Your task to perform on an android device: Go to accessibility settings Image 0: 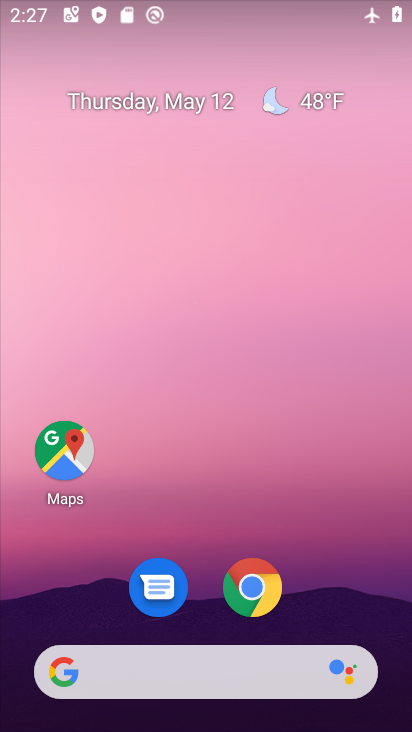
Step 0: drag from (268, 631) to (278, 167)
Your task to perform on an android device: Go to accessibility settings Image 1: 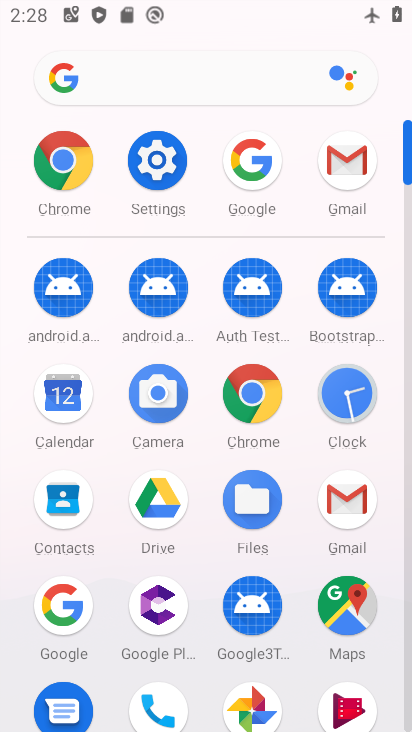
Step 1: click (162, 175)
Your task to perform on an android device: Go to accessibility settings Image 2: 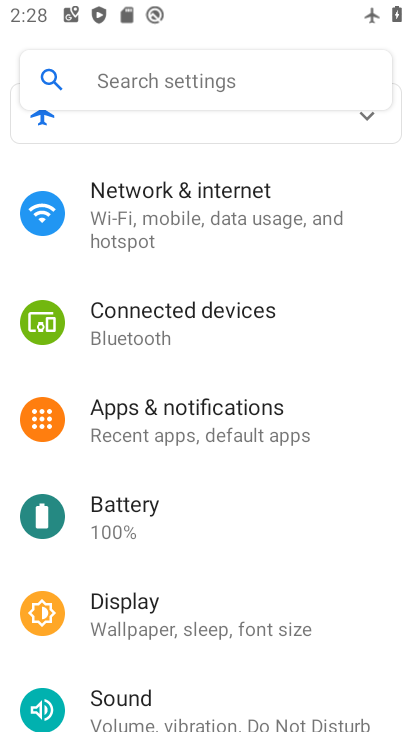
Step 2: drag from (210, 622) to (268, 272)
Your task to perform on an android device: Go to accessibility settings Image 3: 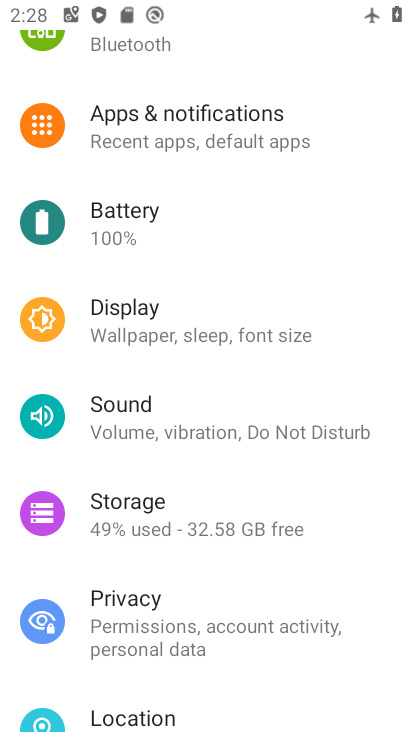
Step 3: drag from (263, 573) to (278, 294)
Your task to perform on an android device: Go to accessibility settings Image 4: 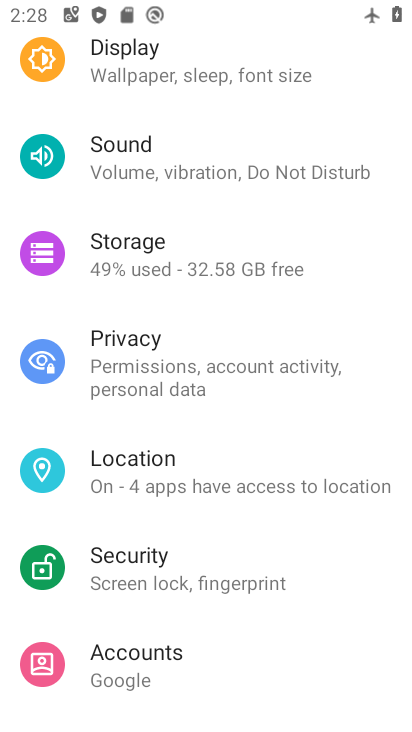
Step 4: drag from (256, 543) to (286, 247)
Your task to perform on an android device: Go to accessibility settings Image 5: 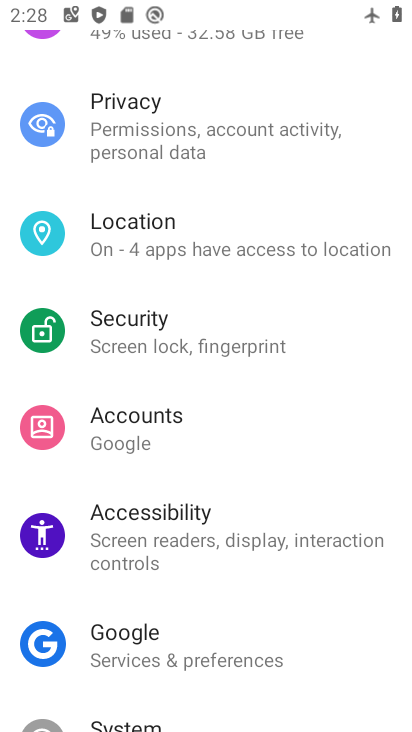
Step 5: drag from (189, 544) to (173, 260)
Your task to perform on an android device: Go to accessibility settings Image 6: 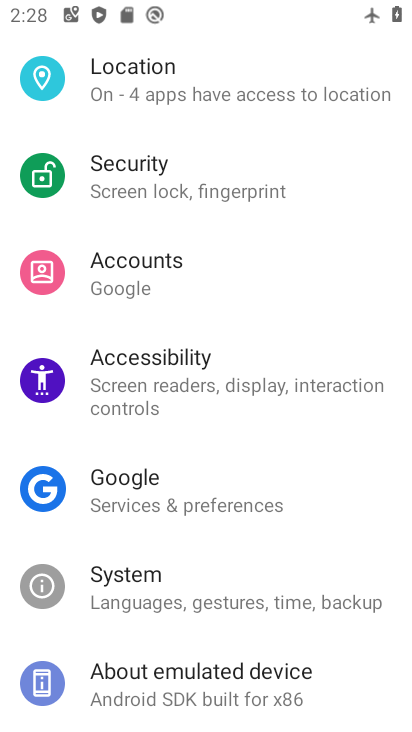
Step 6: click (211, 382)
Your task to perform on an android device: Go to accessibility settings Image 7: 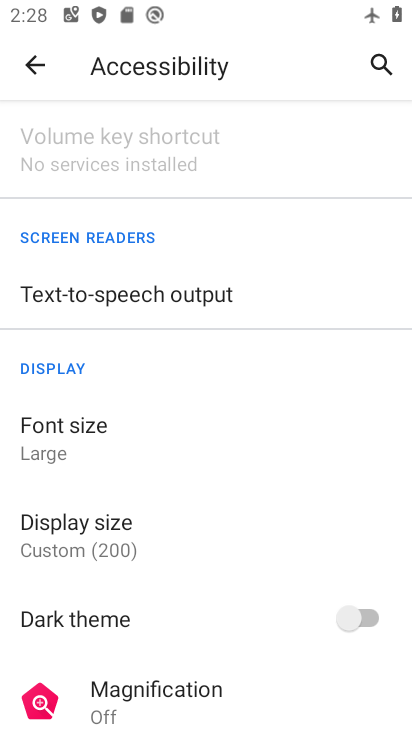
Step 7: task complete